Your task to perform on an android device: see sites visited before in the chrome app Image 0: 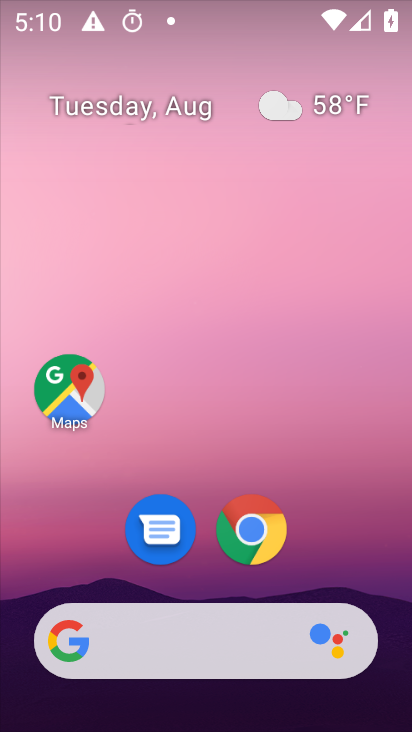
Step 0: click (237, 523)
Your task to perform on an android device: see sites visited before in the chrome app Image 1: 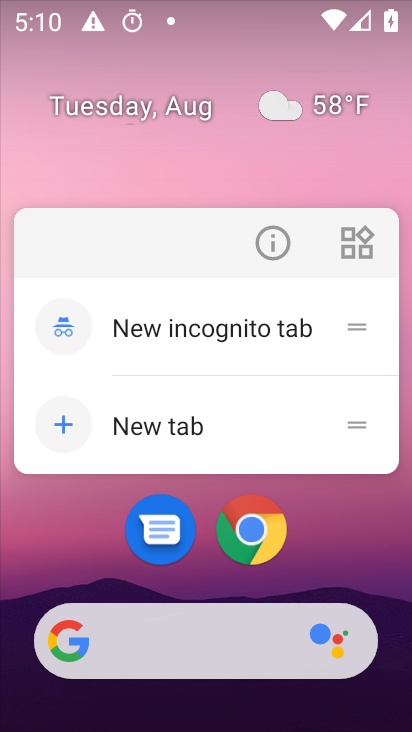
Step 1: click (270, 525)
Your task to perform on an android device: see sites visited before in the chrome app Image 2: 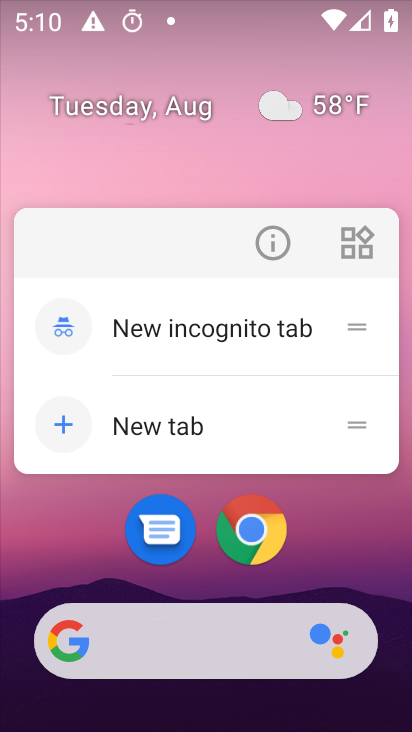
Step 2: click (270, 525)
Your task to perform on an android device: see sites visited before in the chrome app Image 3: 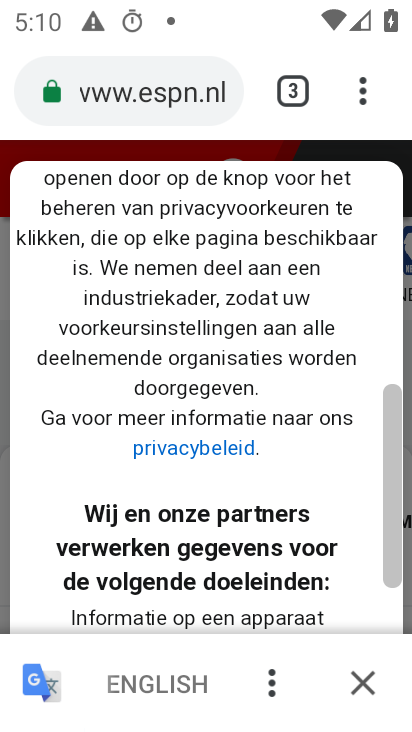
Step 3: click (284, 93)
Your task to perform on an android device: see sites visited before in the chrome app Image 4: 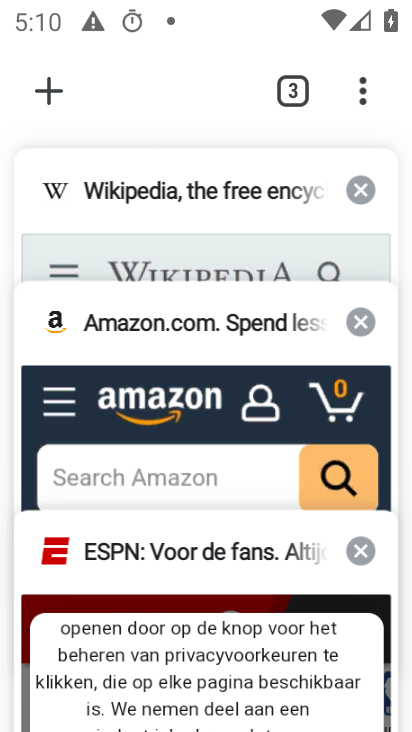
Step 4: click (356, 81)
Your task to perform on an android device: see sites visited before in the chrome app Image 5: 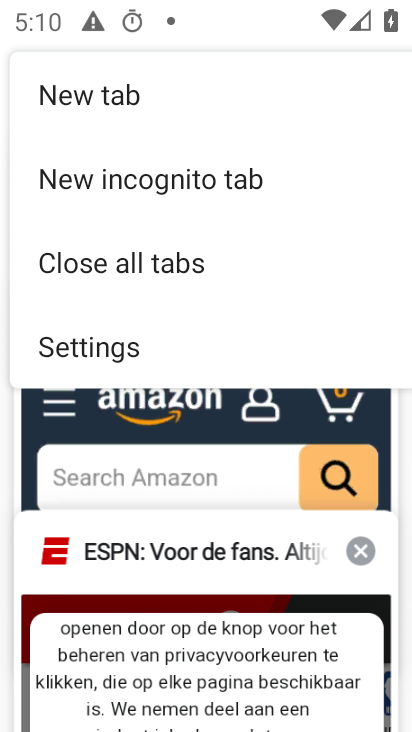
Step 5: drag from (191, 146) to (218, 323)
Your task to perform on an android device: see sites visited before in the chrome app Image 6: 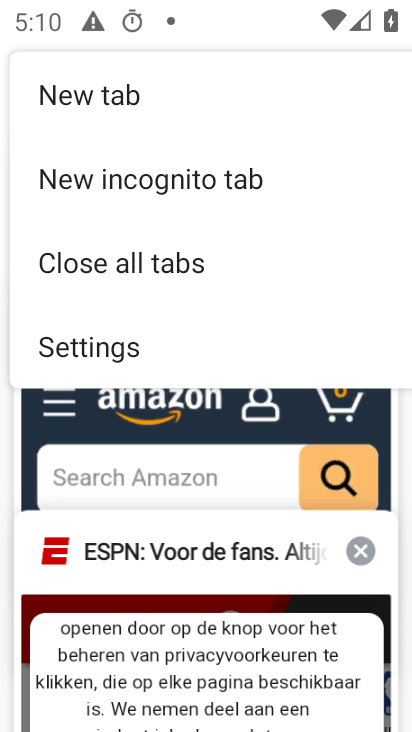
Step 6: click (85, 329)
Your task to perform on an android device: see sites visited before in the chrome app Image 7: 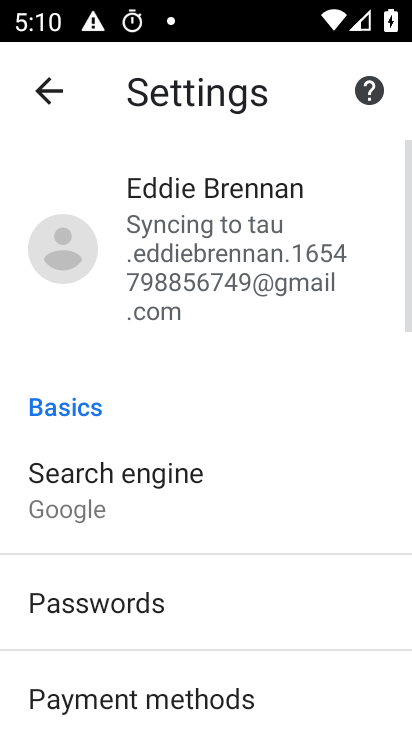
Step 7: task complete